Your task to perform on an android device: change keyboard looks Image 0: 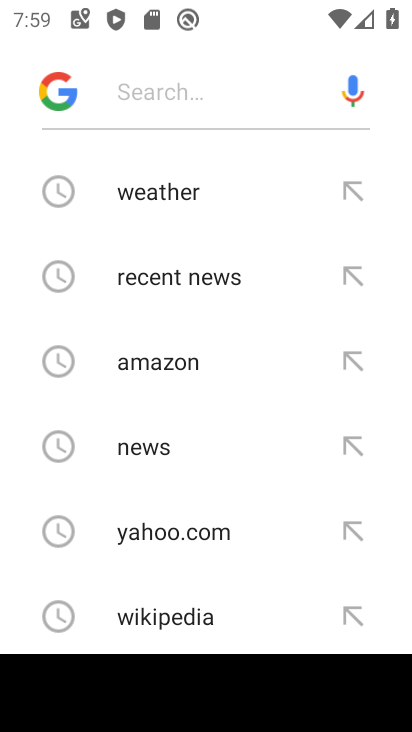
Step 0: press home button
Your task to perform on an android device: change keyboard looks Image 1: 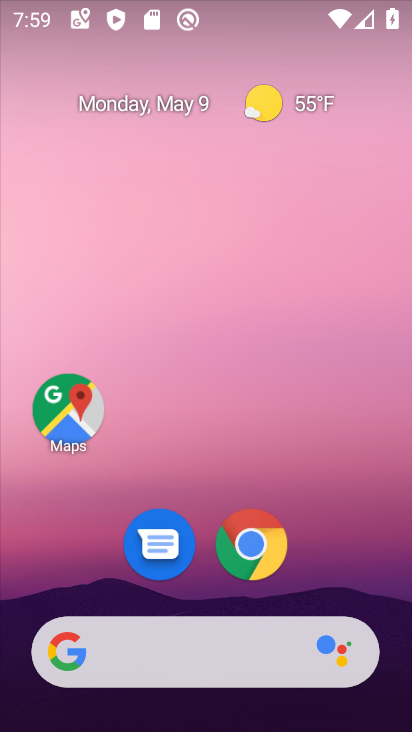
Step 1: drag from (200, 573) to (200, 132)
Your task to perform on an android device: change keyboard looks Image 2: 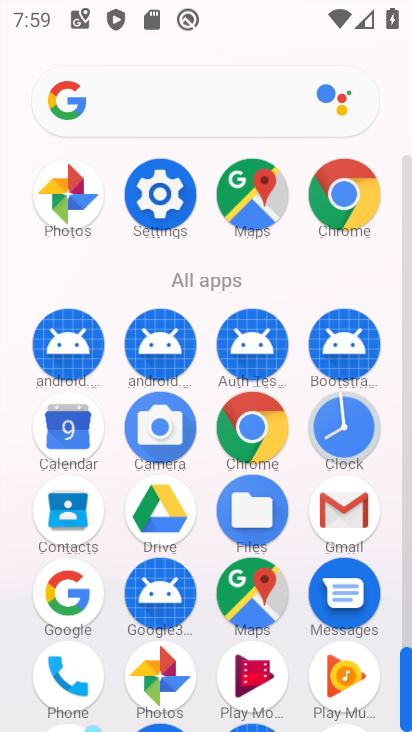
Step 2: click (157, 191)
Your task to perform on an android device: change keyboard looks Image 3: 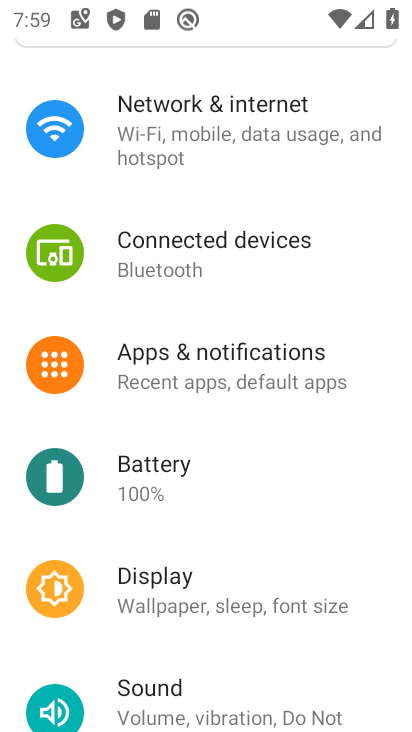
Step 3: drag from (217, 679) to (234, 215)
Your task to perform on an android device: change keyboard looks Image 4: 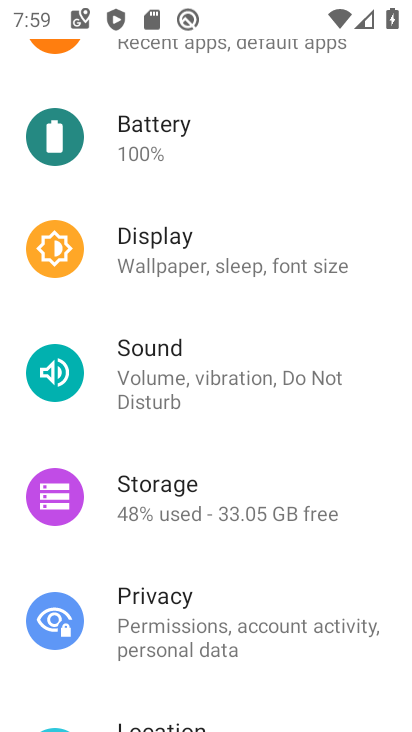
Step 4: drag from (230, 638) to (267, 181)
Your task to perform on an android device: change keyboard looks Image 5: 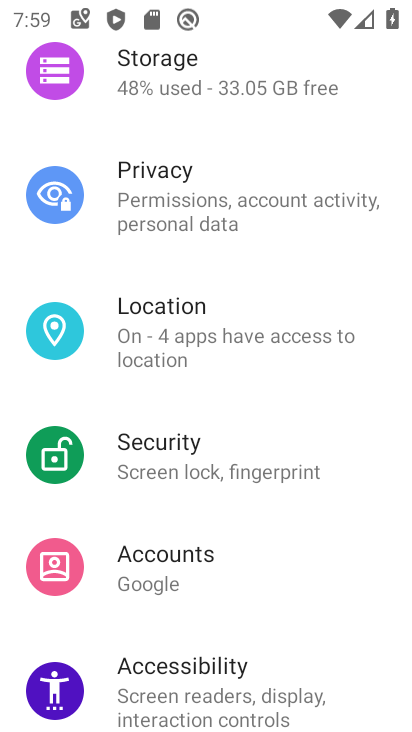
Step 5: drag from (238, 664) to (279, 235)
Your task to perform on an android device: change keyboard looks Image 6: 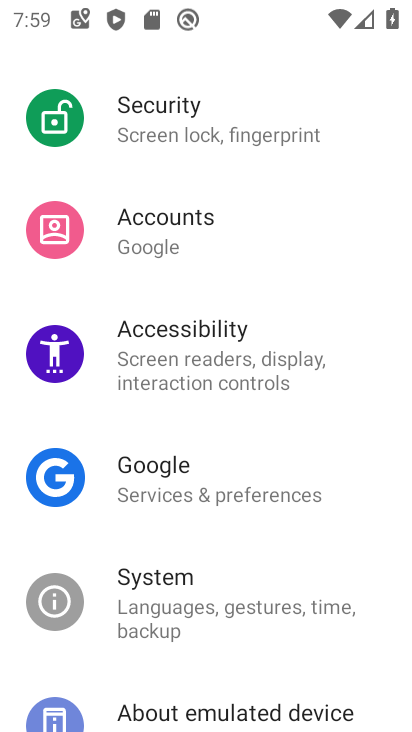
Step 6: drag from (200, 621) to (231, 324)
Your task to perform on an android device: change keyboard looks Image 7: 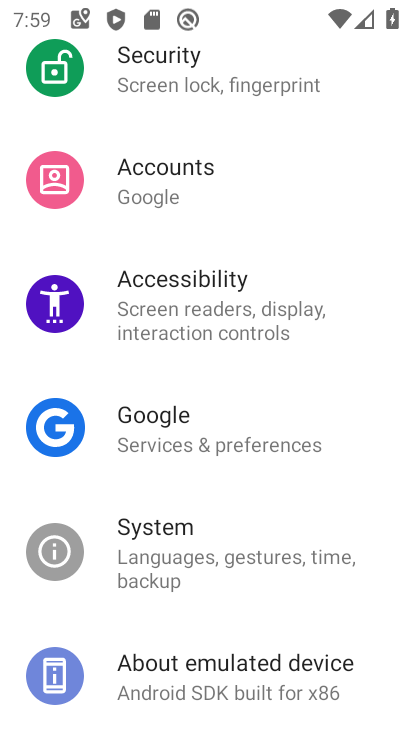
Step 7: click (167, 512)
Your task to perform on an android device: change keyboard looks Image 8: 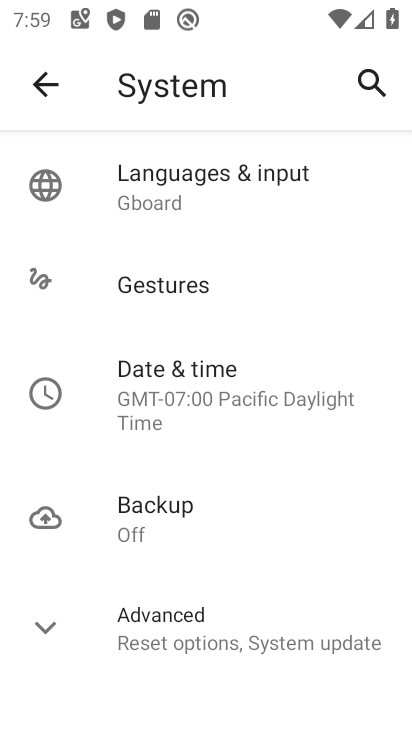
Step 8: click (203, 161)
Your task to perform on an android device: change keyboard looks Image 9: 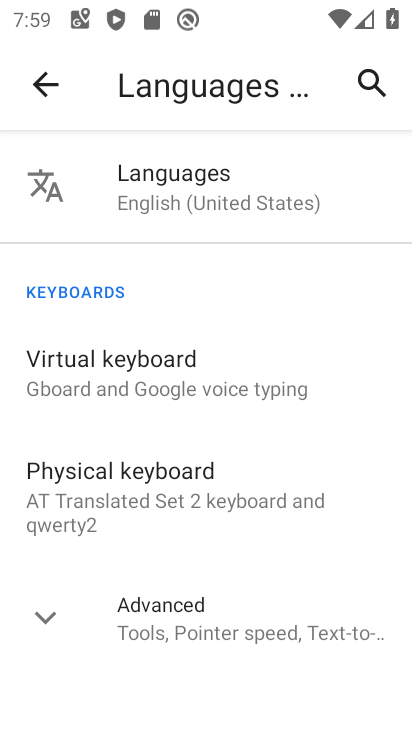
Step 9: click (103, 338)
Your task to perform on an android device: change keyboard looks Image 10: 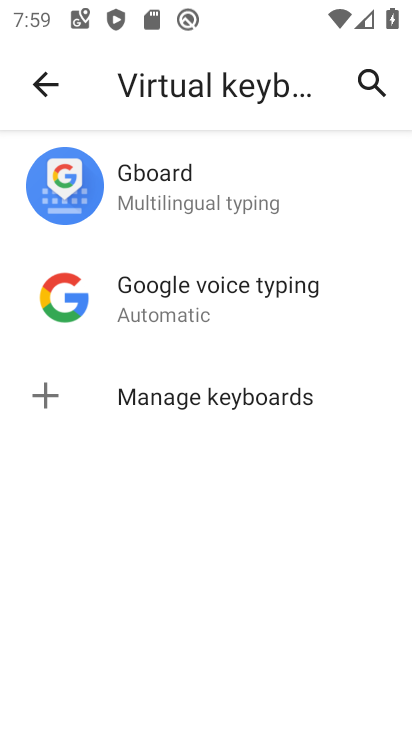
Step 10: click (139, 200)
Your task to perform on an android device: change keyboard looks Image 11: 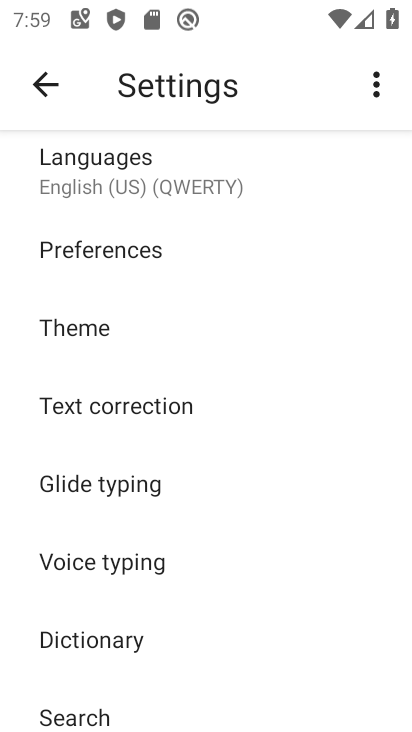
Step 11: click (115, 335)
Your task to perform on an android device: change keyboard looks Image 12: 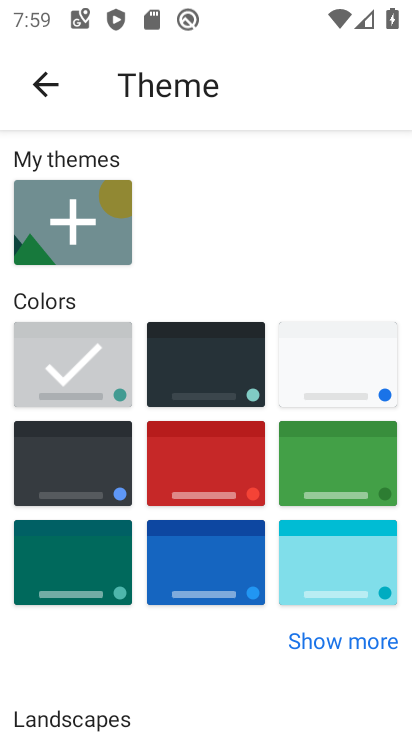
Step 12: click (368, 367)
Your task to perform on an android device: change keyboard looks Image 13: 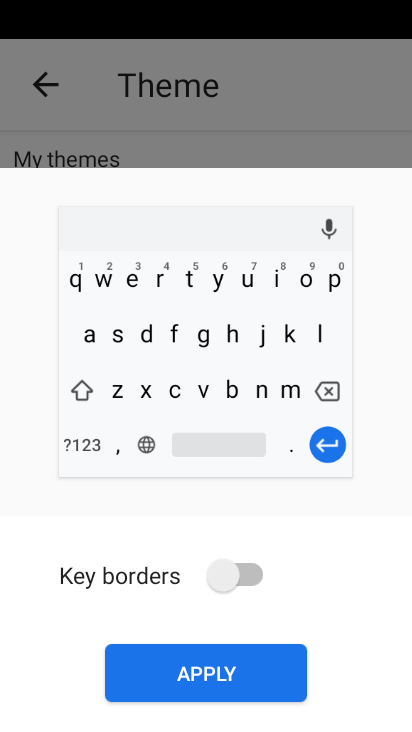
Step 13: click (241, 682)
Your task to perform on an android device: change keyboard looks Image 14: 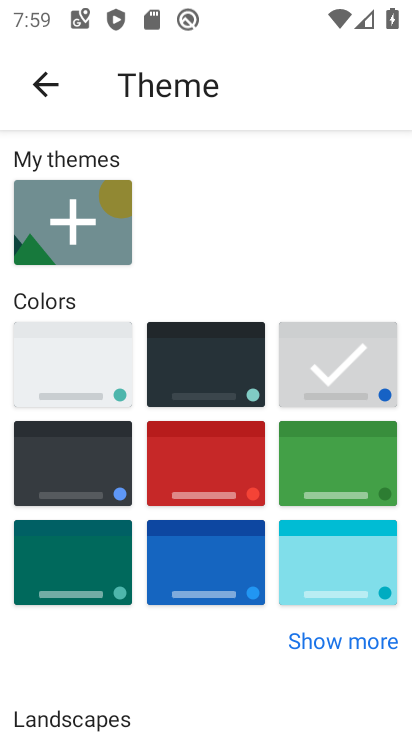
Step 14: task complete